Your task to perform on an android device: Go to accessibility settings Image 0: 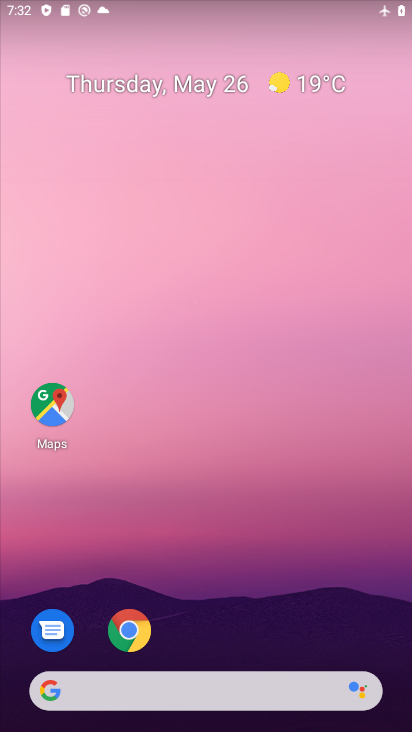
Step 0: drag from (257, 612) to (183, 130)
Your task to perform on an android device: Go to accessibility settings Image 1: 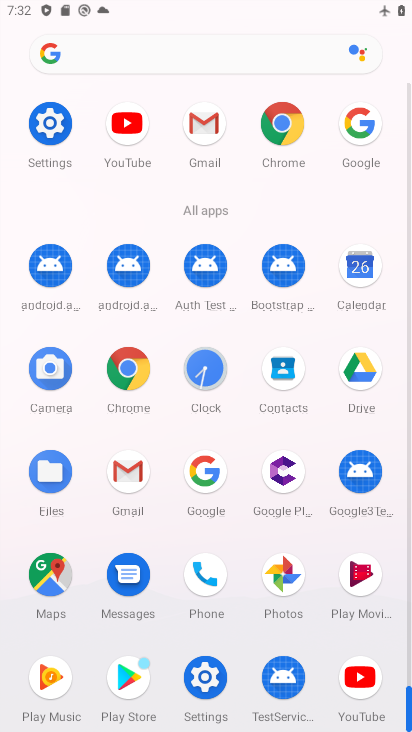
Step 1: click (50, 126)
Your task to perform on an android device: Go to accessibility settings Image 2: 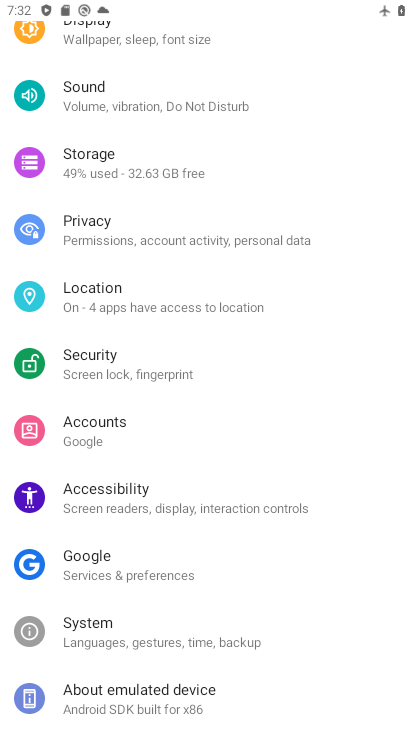
Step 2: click (128, 501)
Your task to perform on an android device: Go to accessibility settings Image 3: 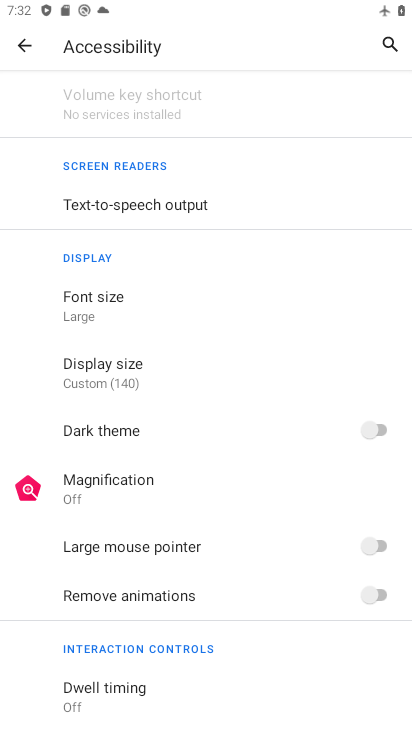
Step 3: task complete